Your task to perform on an android device: Go to Wikipedia Image 0: 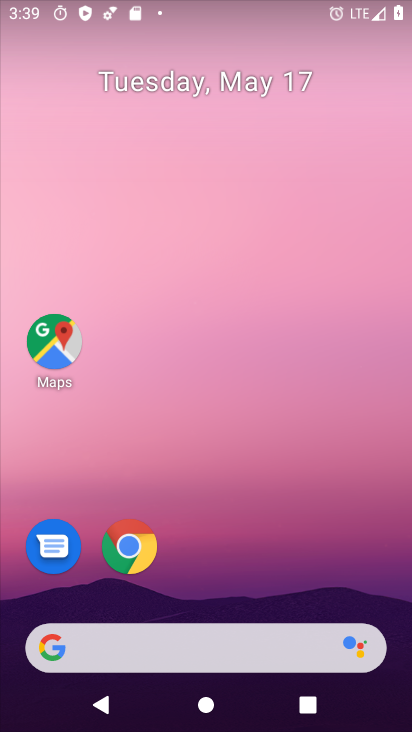
Step 0: press home button
Your task to perform on an android device: Go to Wikipedia Image 1: 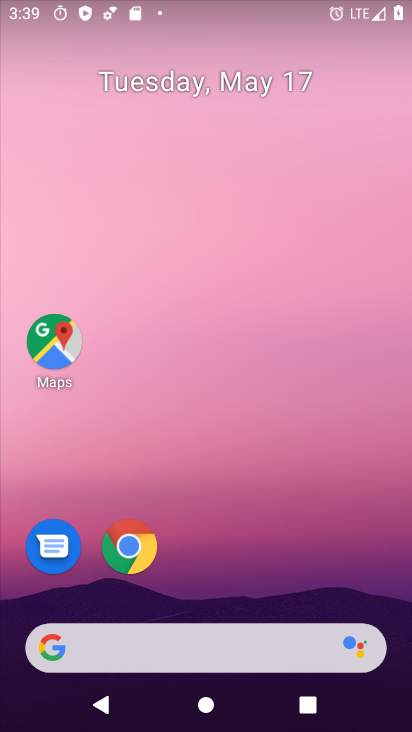
Step 1: drag from (272, 543) to (305, 43)
Your task to perform on an android device: Go to Wikipedia Image 2: 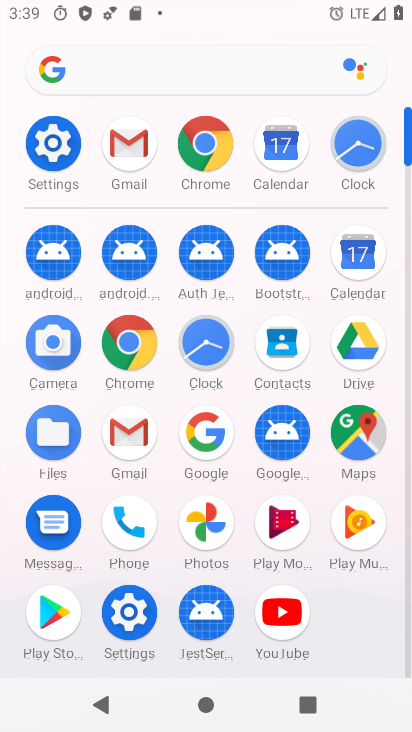
Step 2: click (211, 149)
Your task to perform on an android device: Go to Wikipedia Image 3: 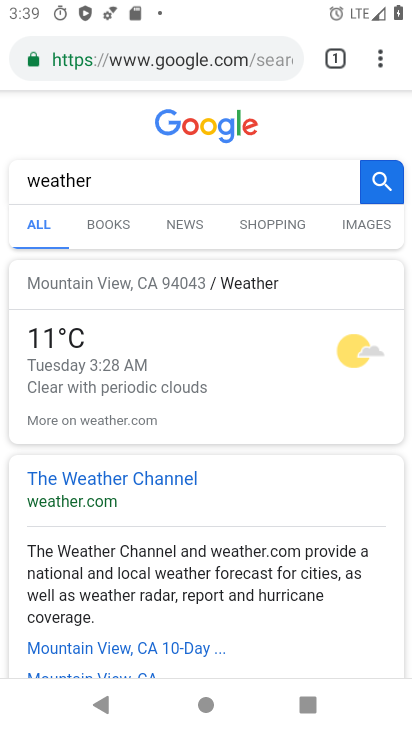
Step 3: click (142, 64)
Your task to perform on an android device: Go to Wikipedia Image 4: 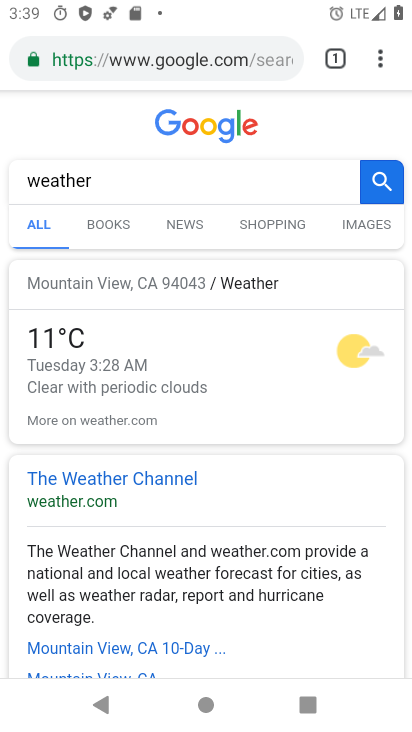
Step 4: click (142, 64)
Your task to perform on an android device: Go to Wikipedia Image 5: 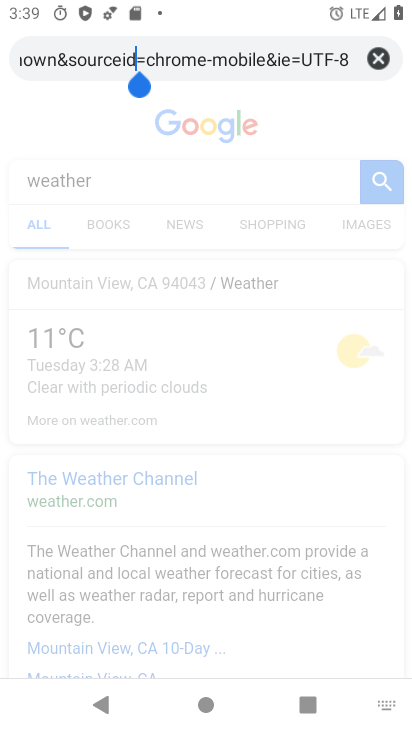
Step 5: click (142, 64)
Your task to perform on an android device: Go to Wikipedia Image 6: 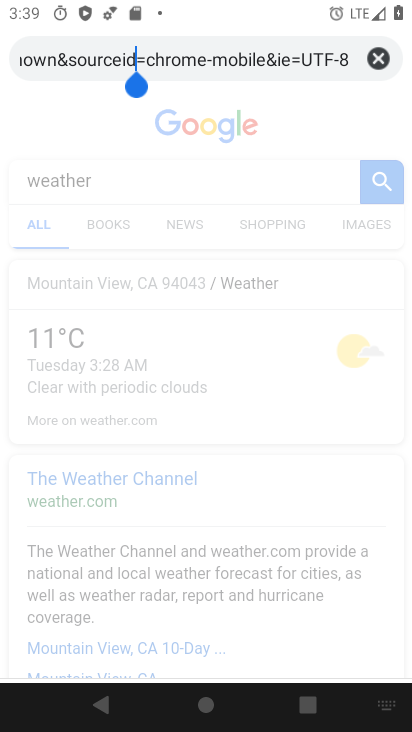
Step 6: click (142, 64)
Your task to perform on an android device: Go to Wikipedia Image 7: 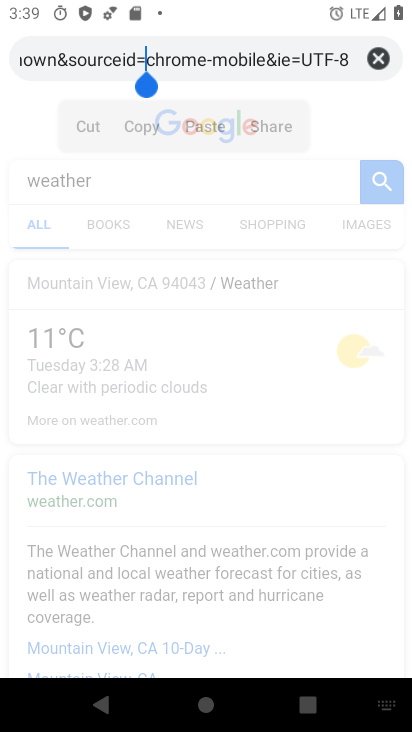
Step 7: click (142, 64)
Your task to perform on an android device: Go to Wikipedia Image 8: 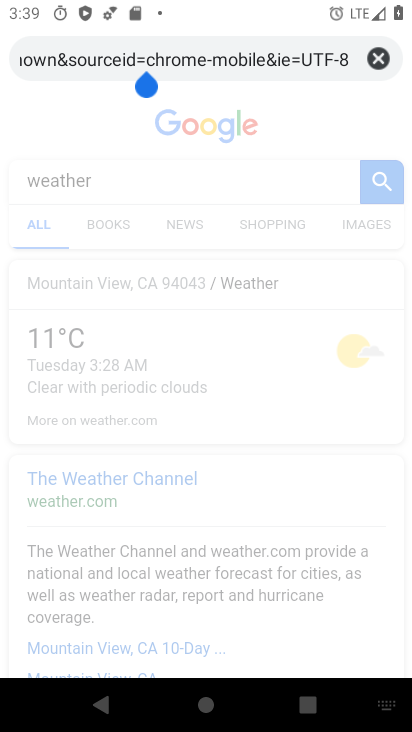
Step 8: click (368, 58)
Your task to perform on an android device: Go to Wikipedia Image 9: 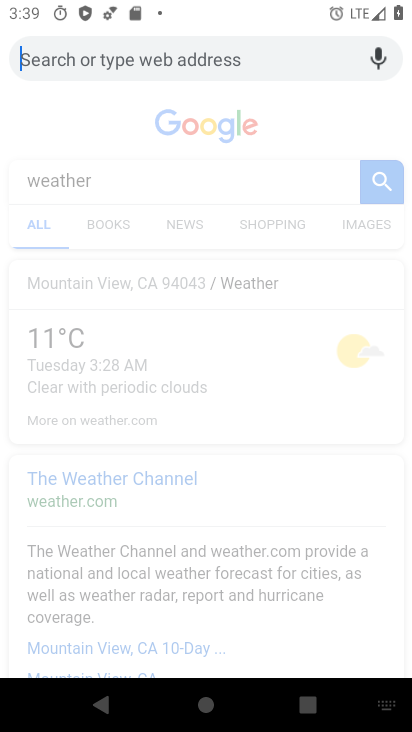
Step 9: type " Wikipedia"
Your task to perform on an android device: Go to Wikipedia Image 10: 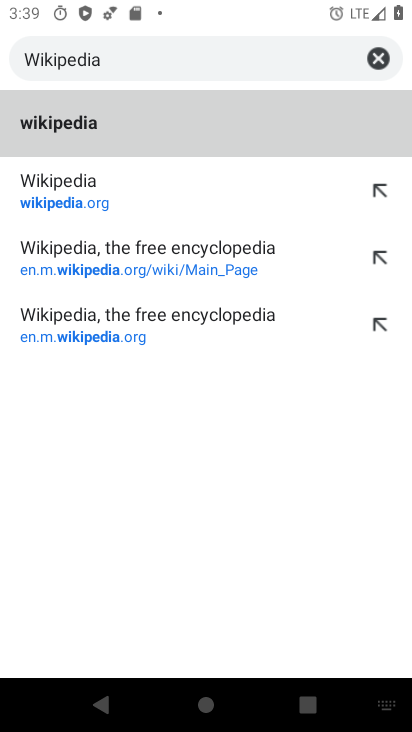
Step 10: click (77, 206)
Your task to perform on an android device: Go to Wikipedia Image 11: 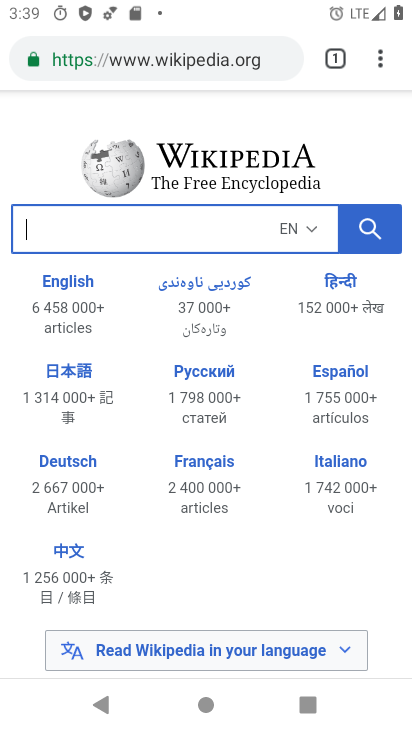
Step 11: task complete